Your task to perform on an android device: Search for Italian restaurants on Maps Image 0: 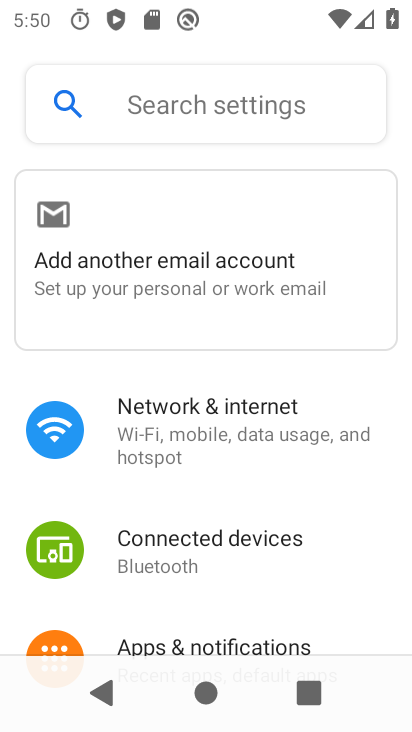
Step 0: press home button
Your task to perform on an android device: Search for Italian restaurants on Maps Image 1: 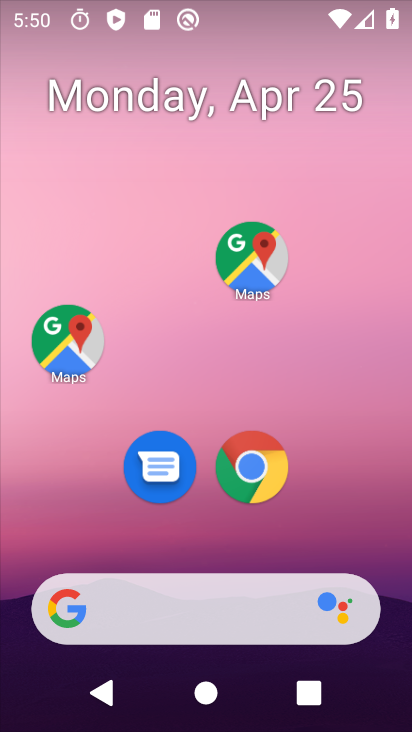
Step 1: drag from (296, 580) to (255, 68)
Your task to perform on an android device: Search for Italian restaurants on Maps Image 2: 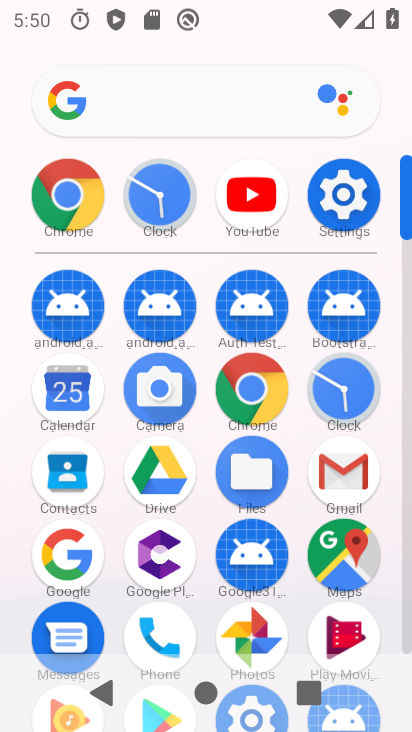
Step 2: click (343, 572)
Your task to perform on an android device: Search for Italian restaurants on Maps Image 3: 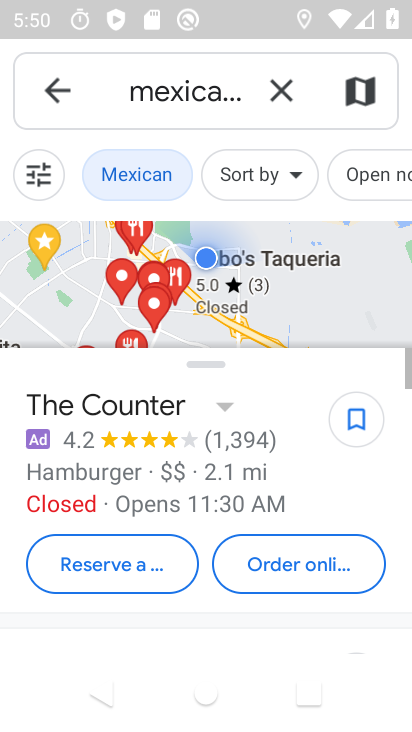
Step 3: click (280, 84)
Your task to perform on an android device: Search for Italian restaurants on Maps Image 4: 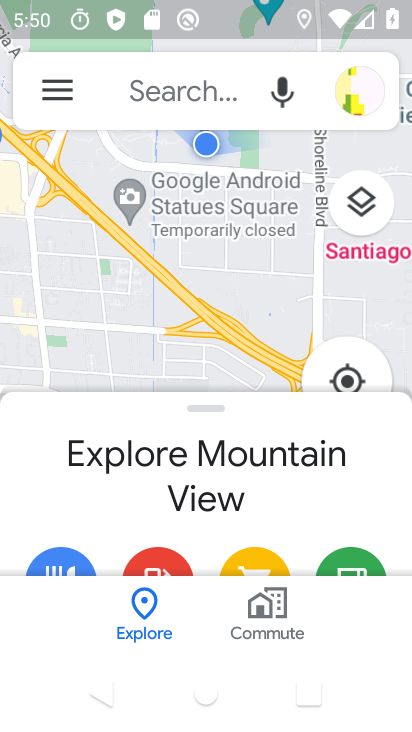
Step 4: click (226, 95)
Your task to perform on an android device: Search for Italian restaurants on Maps Image 5: 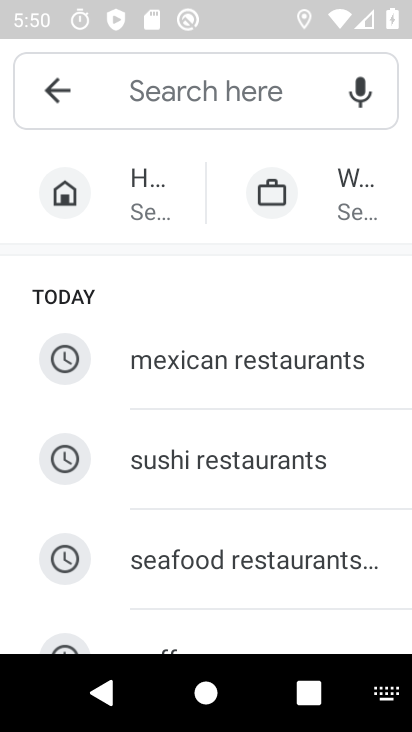
Step 5: drag from (306, 593) to (316, 141)
Your task to perform on an android device: Search for Italian restaurants on Maps Image 6: 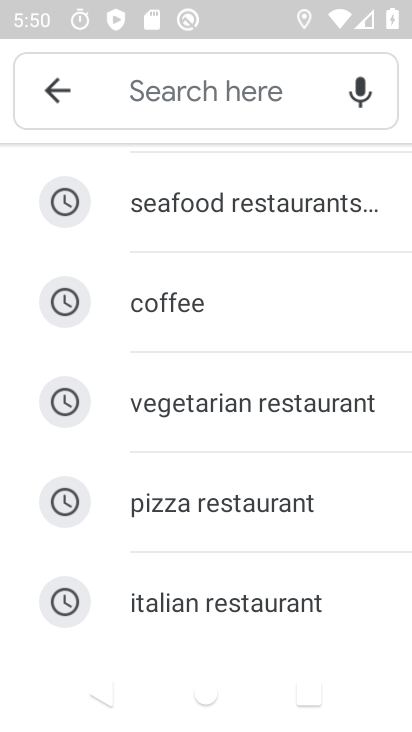
Step 6: click (272, 602)
Your task to perform on an android device: Search for Italian restaurants on Maps Image 7: 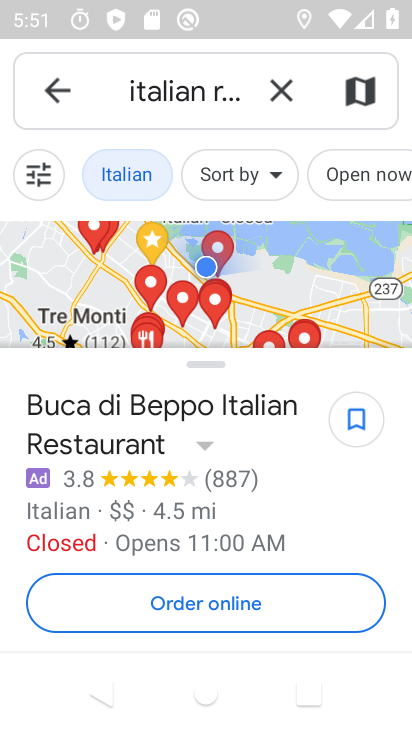
Step 7: task complete